Your task to perform on an android device: empty trash in google photos Image 0: 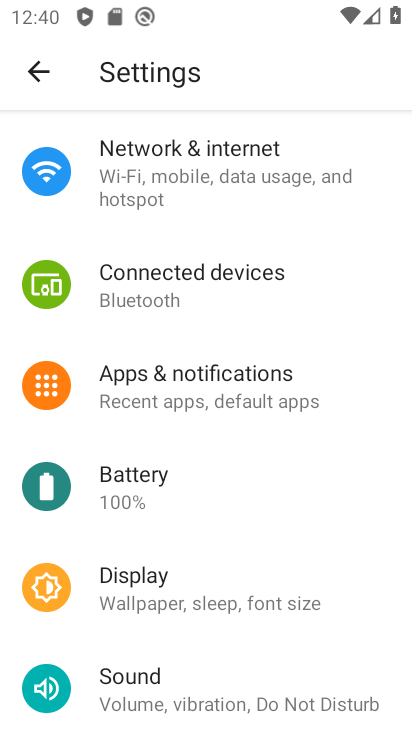
Step 0: press home button
Your task to perform on an android device: empty trash in google photos Image 1: 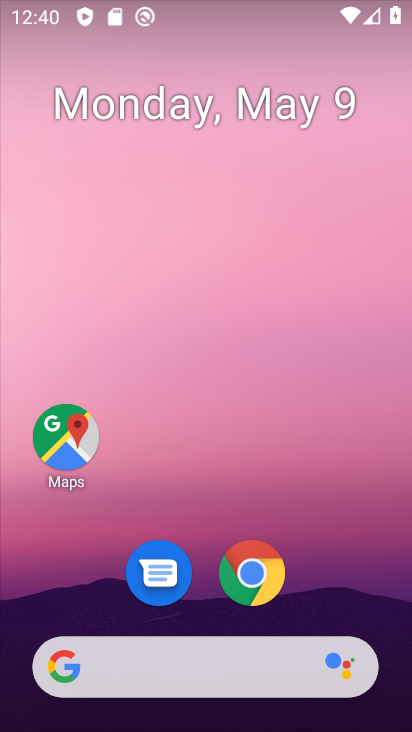
Step 1: drag from (213, 493) to (70, 48)
Your task to perform on an android device: empty trash in google photos Image 2: 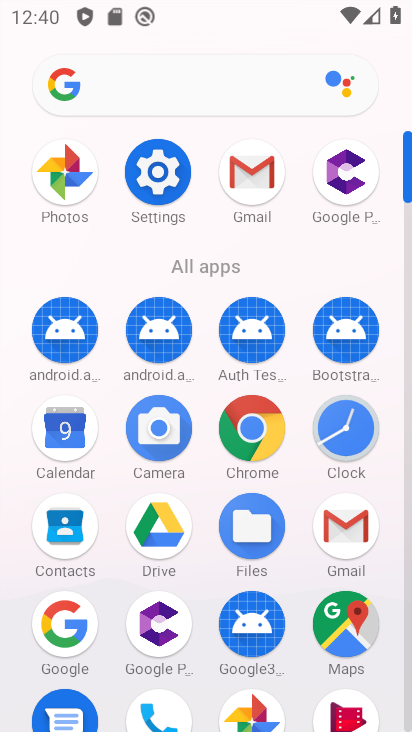
Step 2: click (260, 711)
Your task to perform on an android device: empty trash in google photos Image 3: 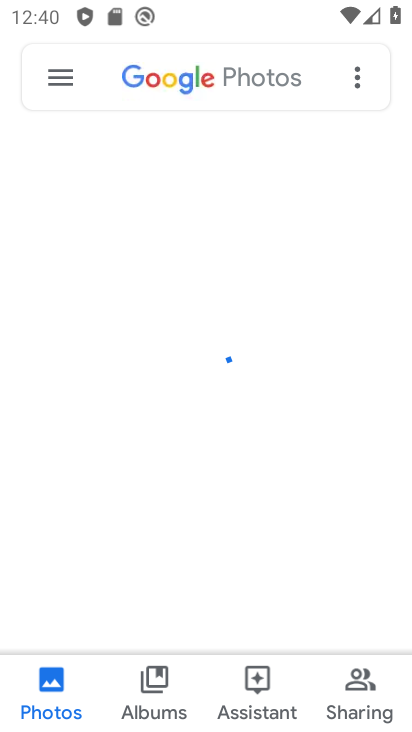
Step 3: click (71, 79)
Your task to perform on an android device: empty trash in google photos Image 4: 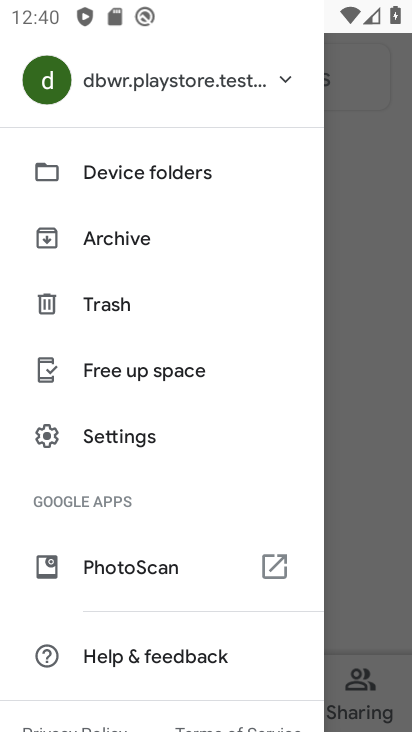
Step 4: click (88, 306)
Your task to perform on an android device: empty trash in google photos Image 5: 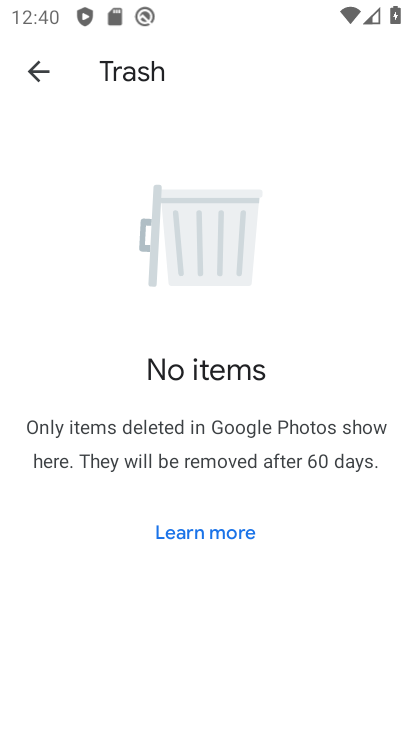
Step 5: task complete